Your task to perform on an android device: Turn off the flashlight Image 0: 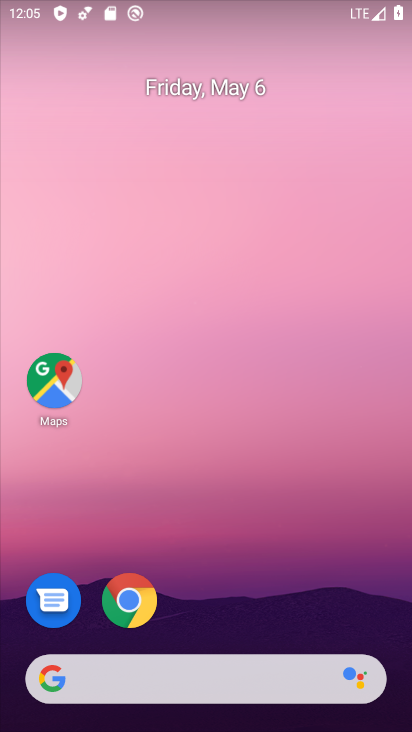
Step 0: drag from (350, 609) to (269, 95)
Your task to perform on an android device: Turn off the flashlight Image 1: 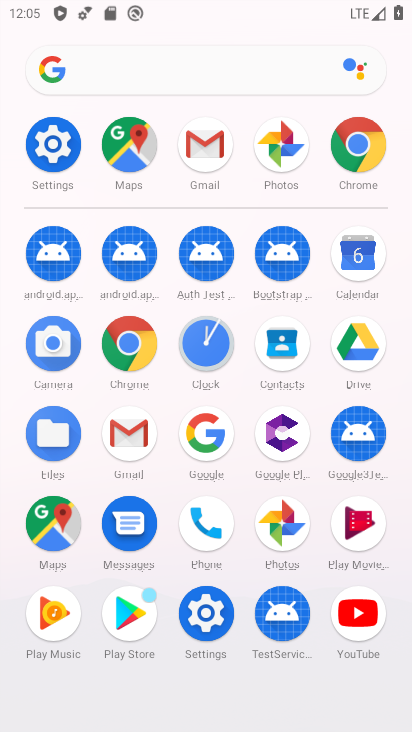
Step 1: click (63, 144)
Your task to perform on an android device: Turn off the flashlight Image 2: 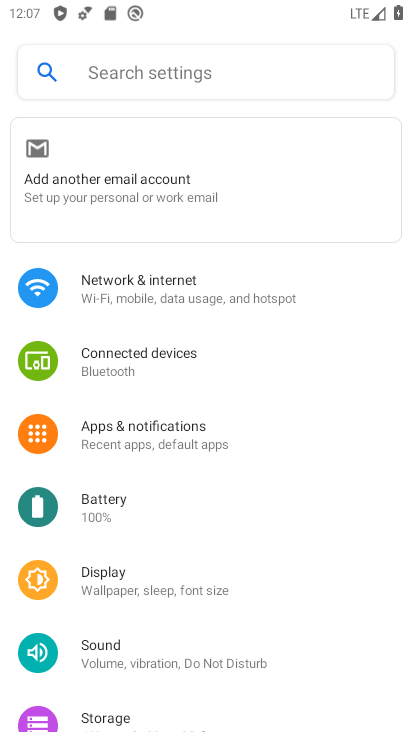
Step 2: task complete